Your task to perform on an android device: Open Google Maps and go to "Timeline" Image 0: 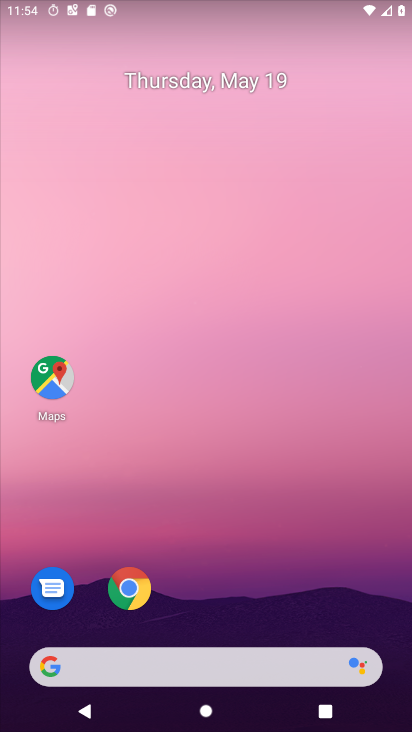
Step 0: press home button
Your task to perform on an android device: Open Google Maps and go to "Timeline" Image 1: 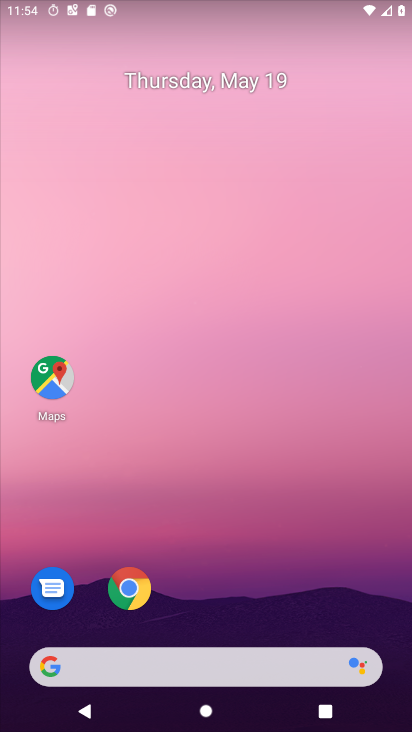
Step 1: click (54, 387)
Your task to perform on an android device: Open Google Maps and go to "Timeline" Image 2: 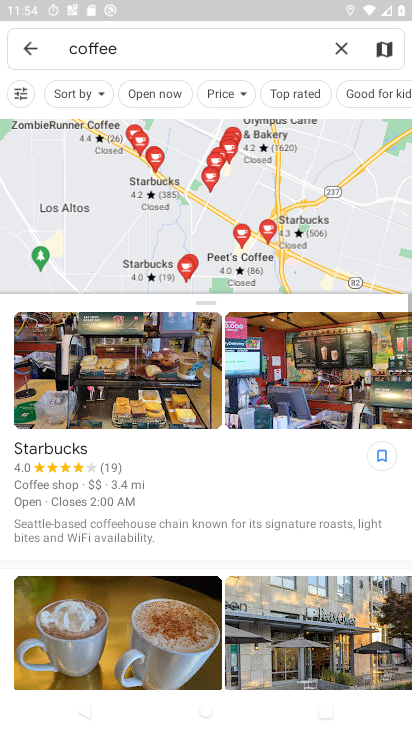
Step 2: click (32, 52)
Your task to perform on an android device: Open Google Maps and go to "Timeline" Image 3: 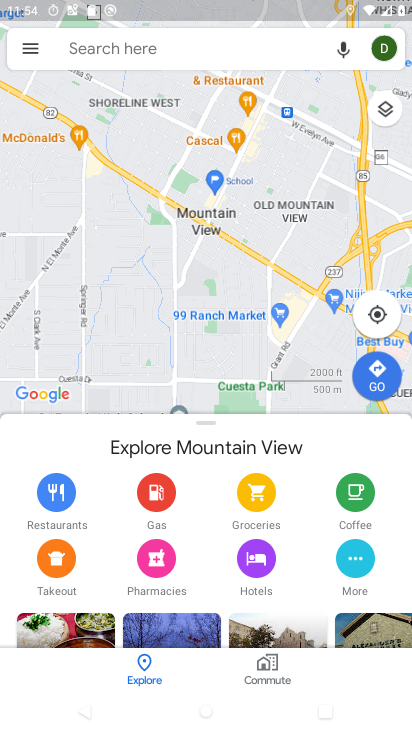
Step 3: drag from (32, 52) to (39, 117)
Your task to perform on an android device: Open Google Maps and go to "Timeline" Image 4: 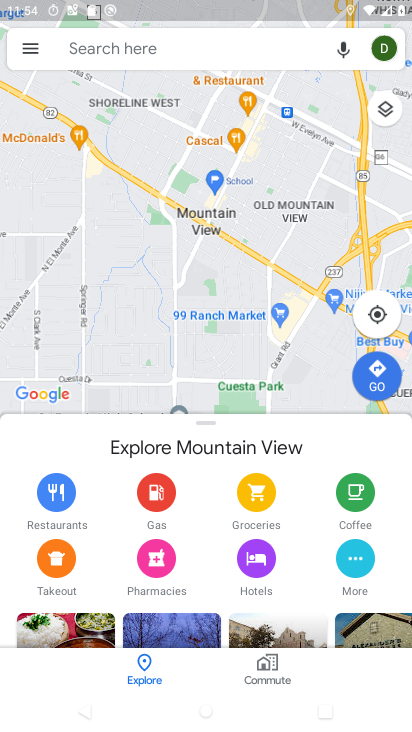
Step 4: click (29, 45)
Your task to perform on an android device: Open Google Maps and go to "Timeline" Image 5: 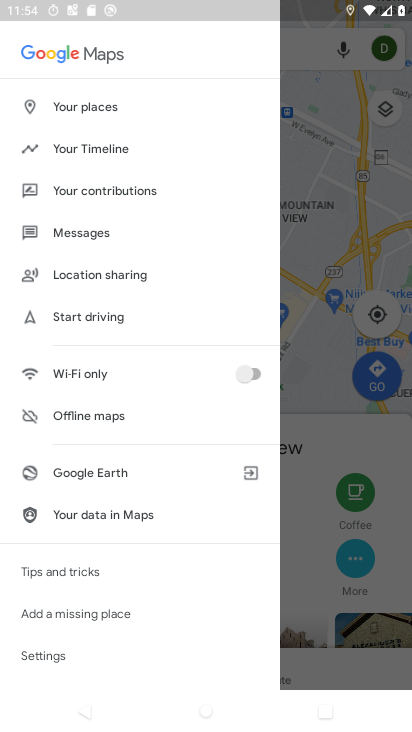
Step 5: click (77, 152)
Your task to perform on an android device: Open Google Maps and go to "Timeline" Image 6: 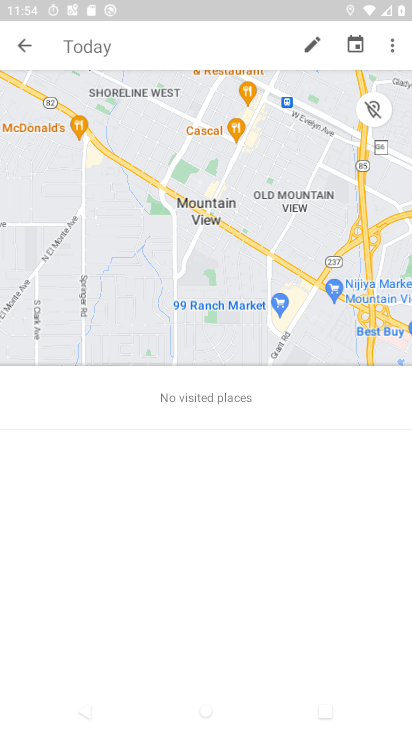
Step 6: task complete